Your task to perform on an android device: Go to Google maps Image 0: 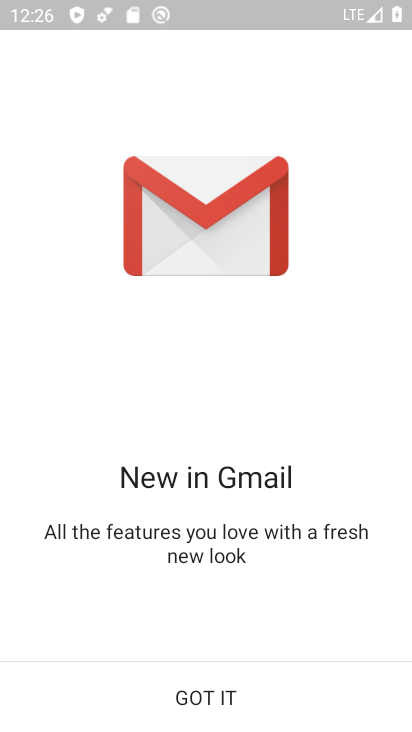
Step 0: press home button
Your task to perform on an android device: Go to Google maps Image 1: 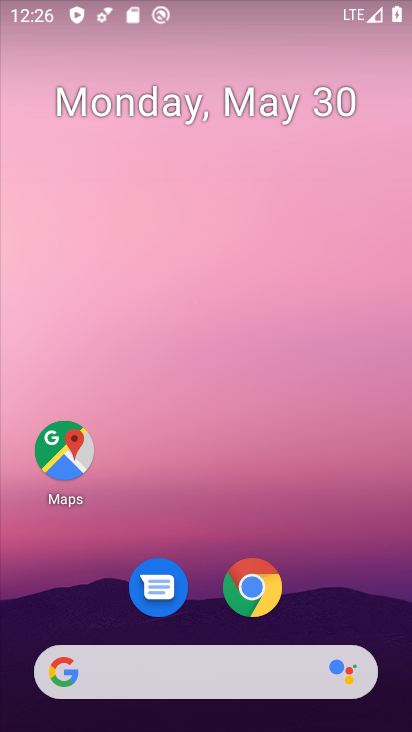
Step 1: click (68, 449)
Your task to perform on an android device: Go to Google maps Image 2: 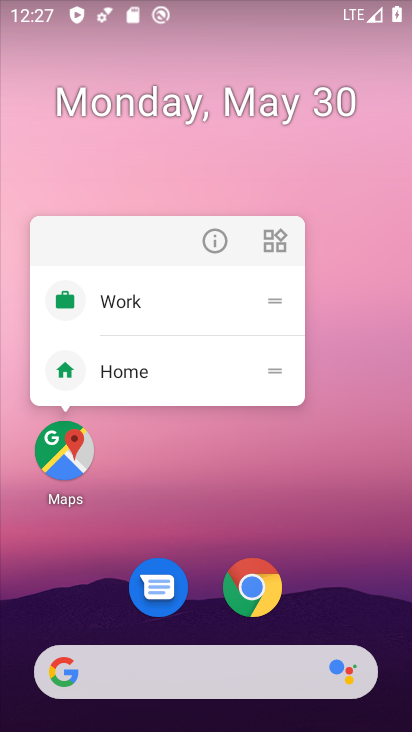
Step 2: click (72, 456)
Your task to perform on an android device: Go to Google maps Image 3: 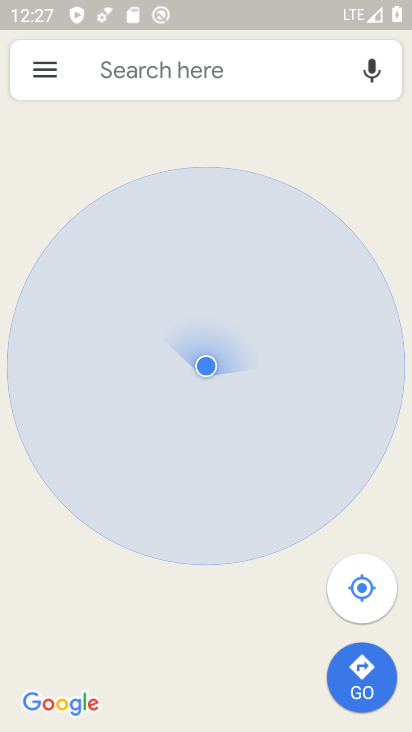
Step 3: task complete